Your task to perform on an android device: open app "File Manager" Image 0: 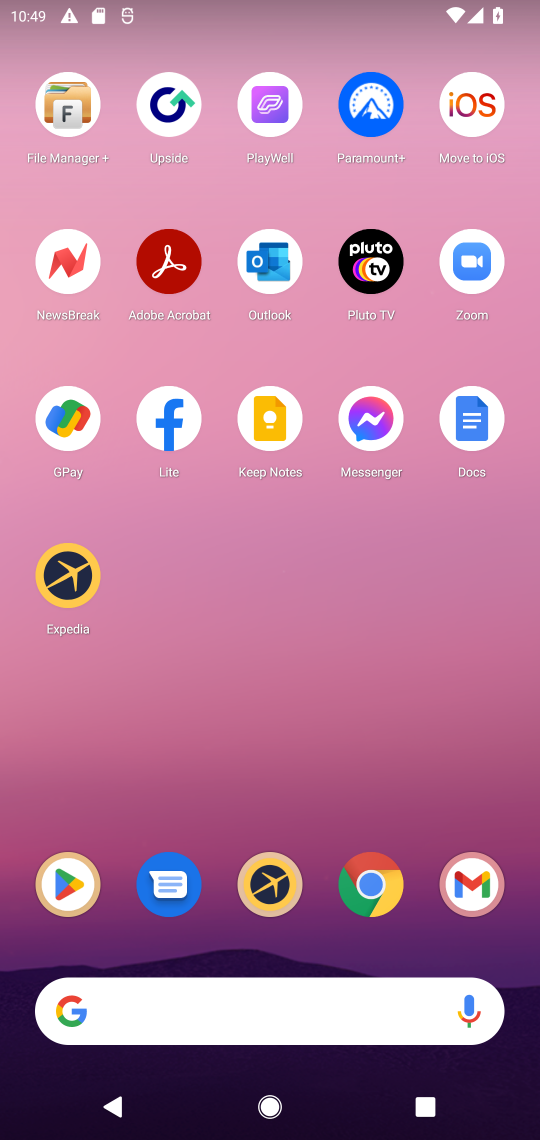
Step 0: click (81, 873)
Your task to perform on an android device: open app "File Manager" Image 1: 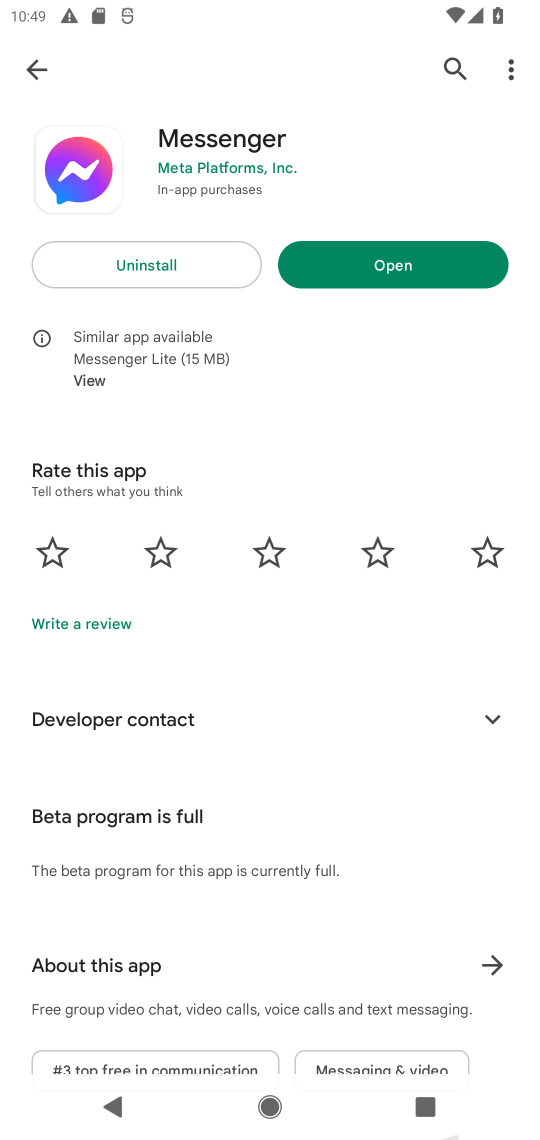
Step 1: click (444, 67)
Your task to perform on an android device: open app "File Manager" Image 2: 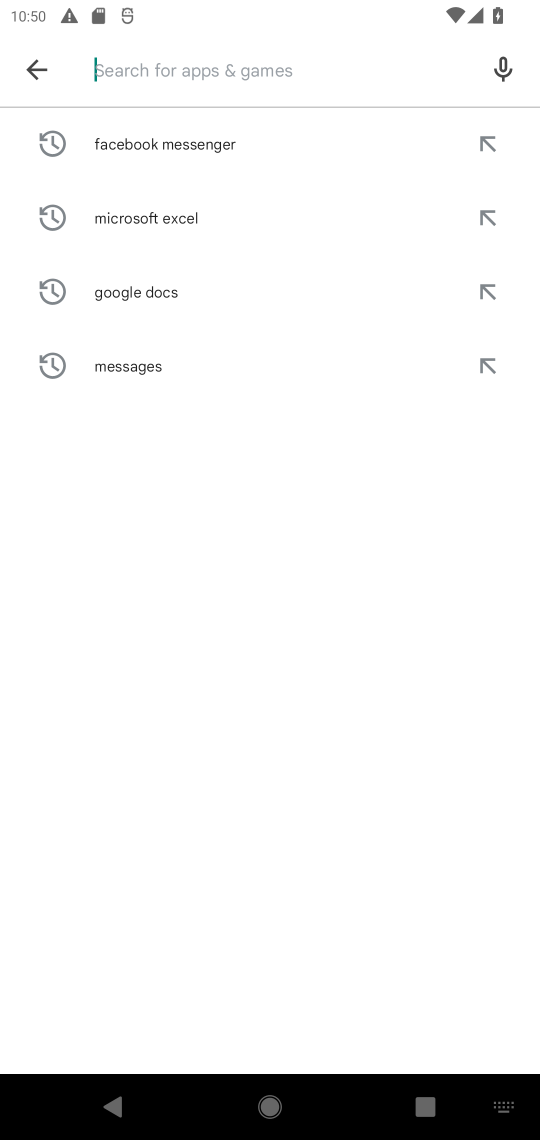
Step 2: type "file manager"
Your task to perform on an android device: open app "File Manager" Image 3: 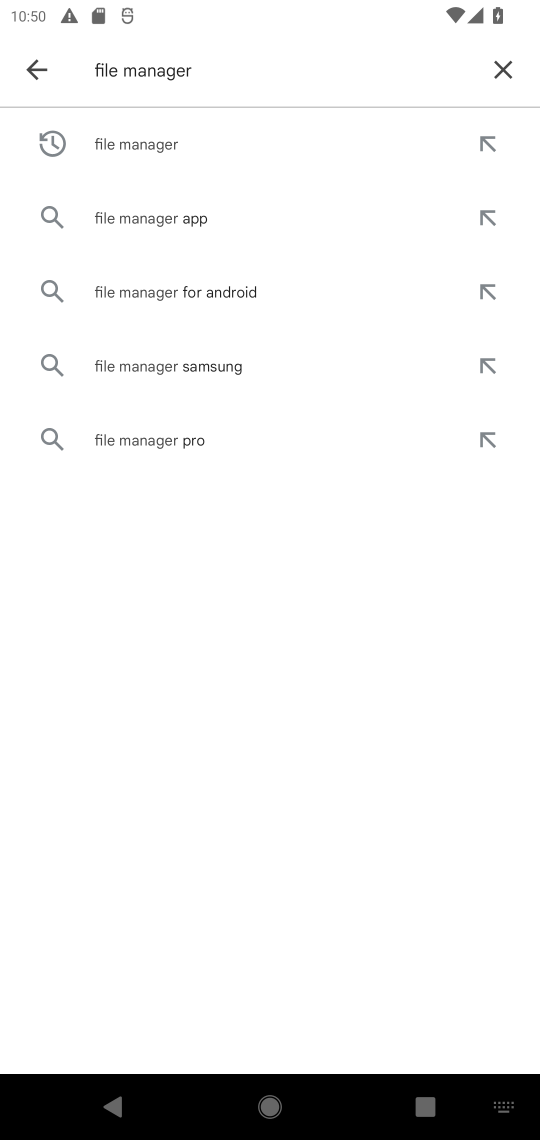
Step 3: click (117, 136)
Your task to perform on an android device: open app "File Manager" Image 4: 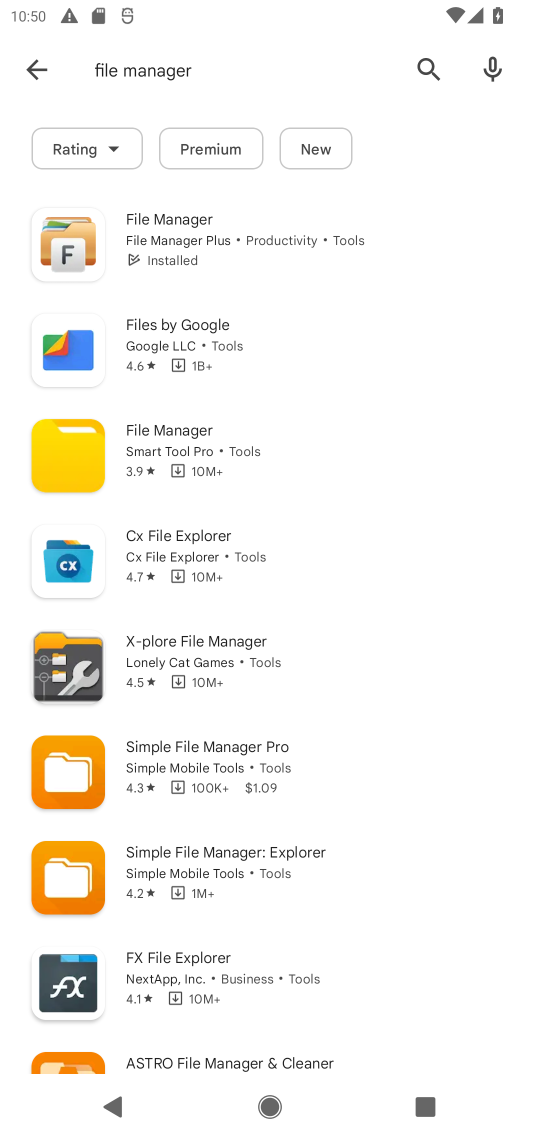
Step 4: click (202, 259)
Your task to perform on an android device: open app "File Manager" Image 5: 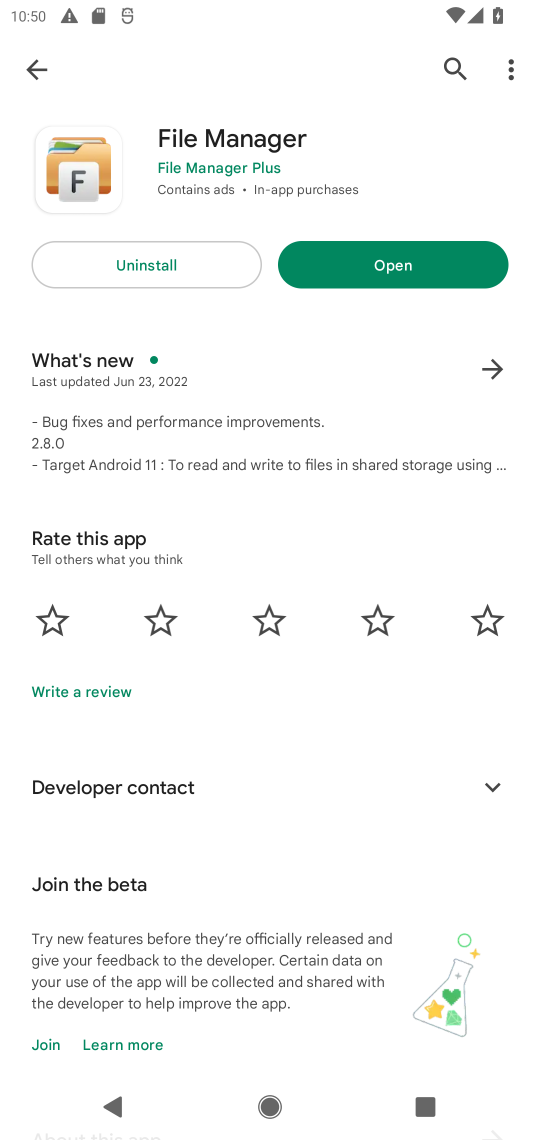
Step 5: click (414, 260)
Your task to perform on an android device: open app "File Manager" Image 6: 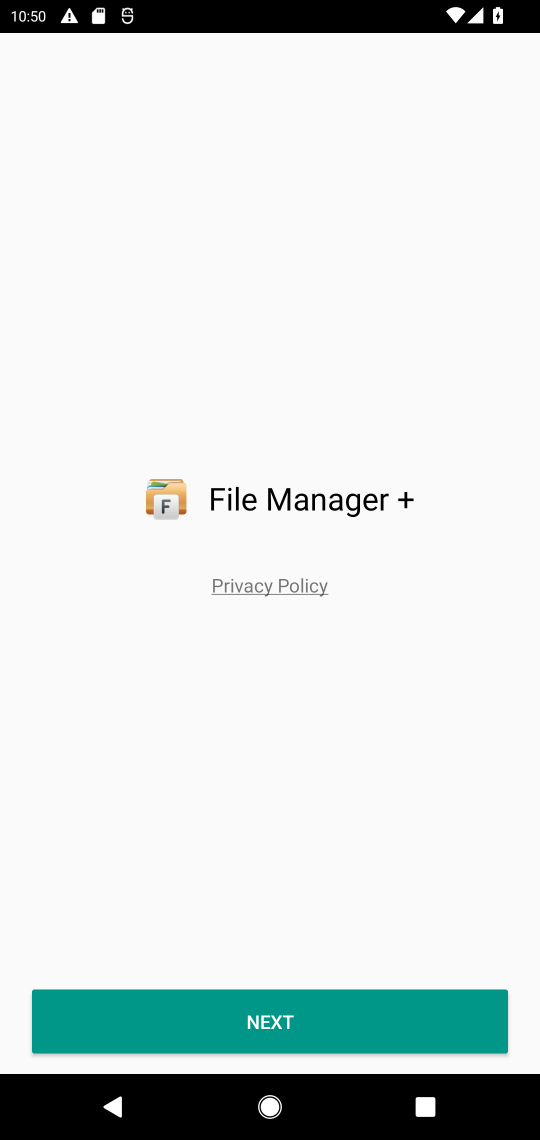
Step 6: task complete